Your task to perform on an android device: Open calendar and show me the first week of next month Image 0: 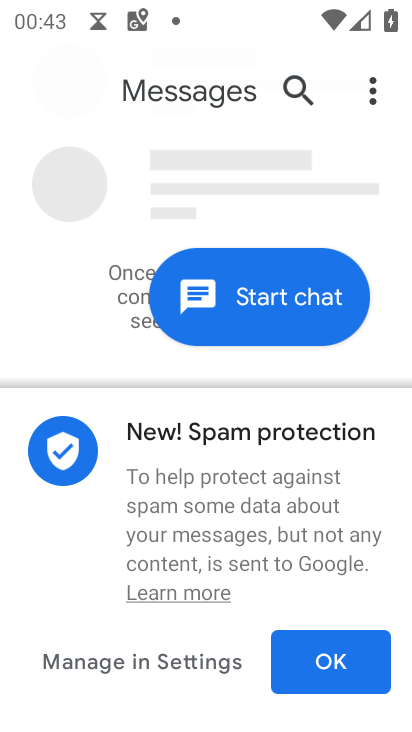
Step 0: press home button
Your task to perform on an android device: Open calendar and show me the first week of next month Image 1: 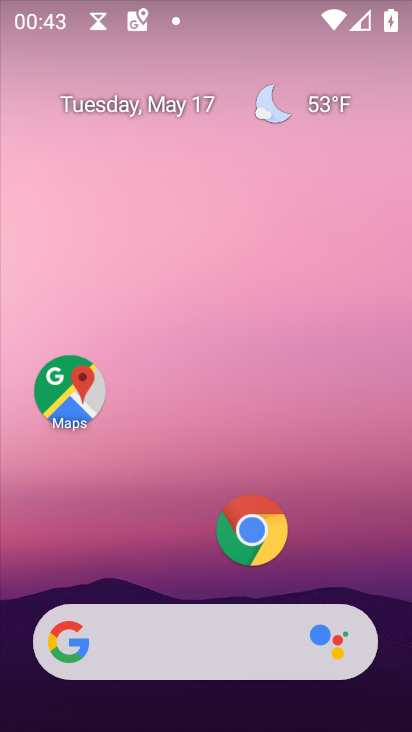
Step 1: drag from (344, 551) to (289, 152)
Your task to perform on an android device: Open calendar and show me the first week of next month Image 2: 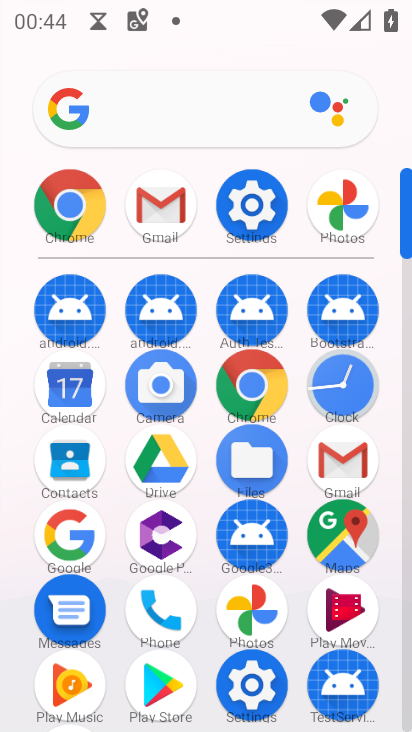
Step 2: click (74, 400)
Your task to perform on an android device: Open calendar and show me the first week of next month Image 3: 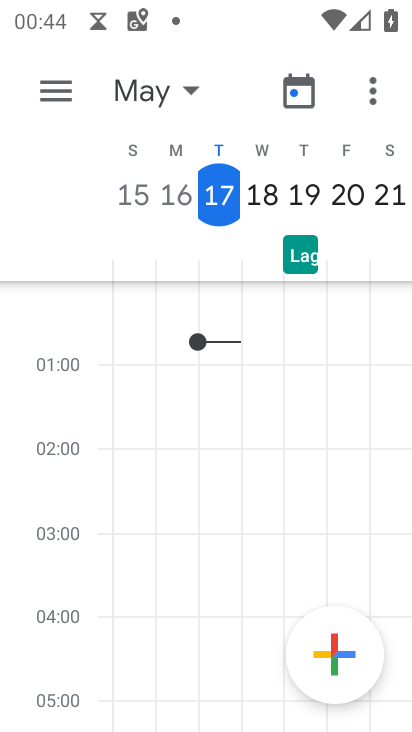
Step 3: click (51, 87)
Your task to perform on an android device: Open calendar and show me the first week of next month Image 4: 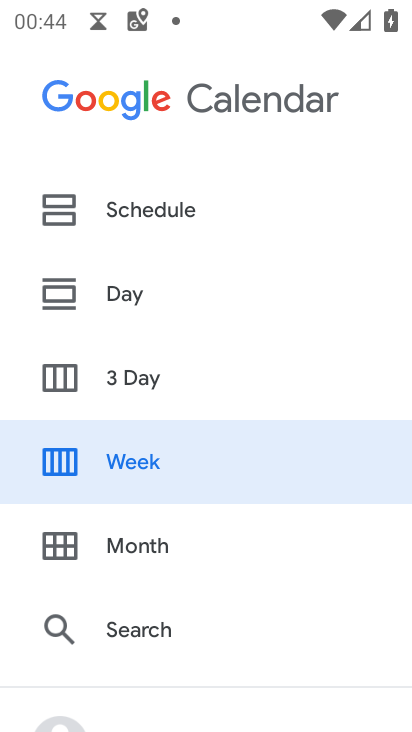
Step 4: click (78, 442)
Your task to perform on an android device: Open calendar and show me the first week of next month Image 5: 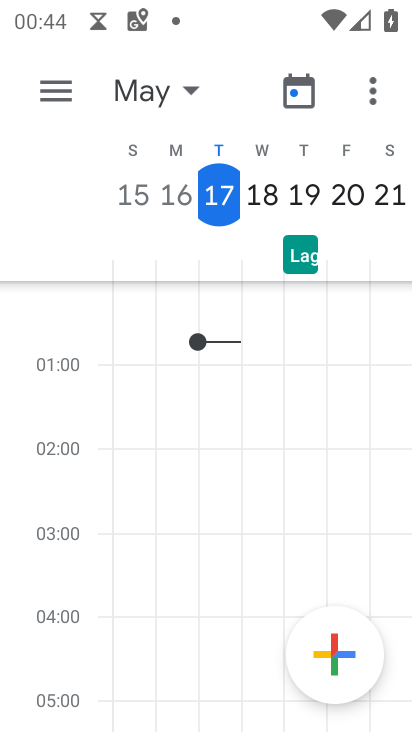
Step 5: click (156, 71)
Your task to perform on an android device: Open calendar and show me the first week of next month Image 6: 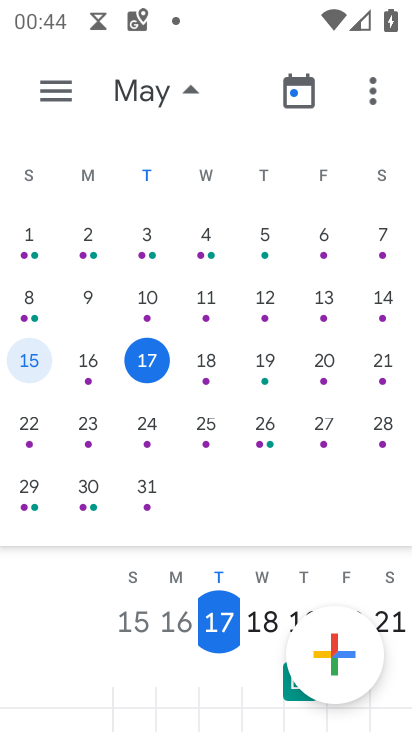
Step 6: task complete